Your task to perform on an android device: turn on the 24-hour format for clock Image 0: 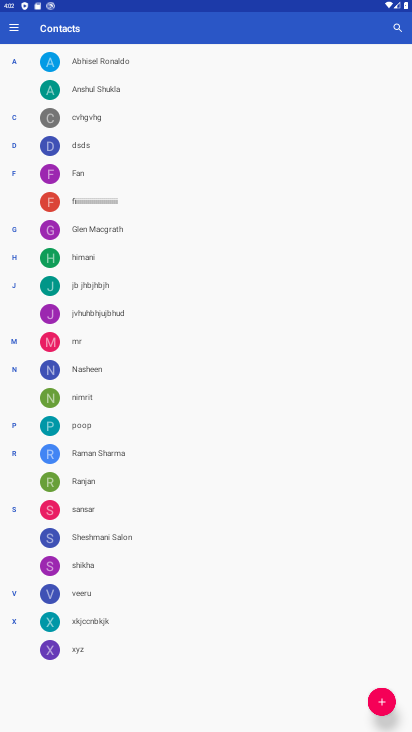
Step 0: press home button
Your task to perform on an android device: turn on the 24-hour format for clock Image 1: 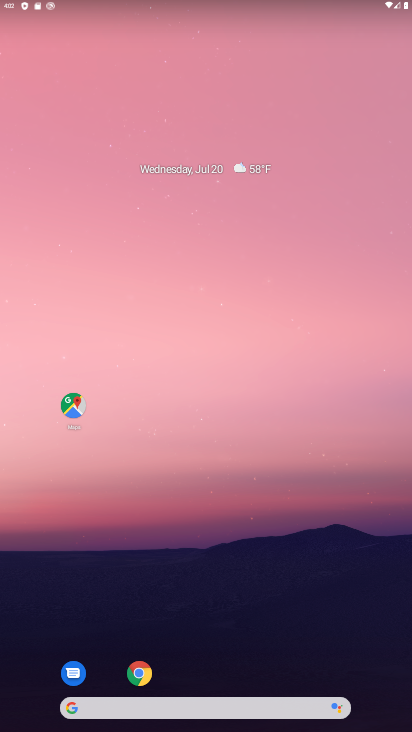
Step 1: drag from (215, 348) to (213, 77)
Your task to perform on an android device: turn on the 24-hour format for clock Image 2: 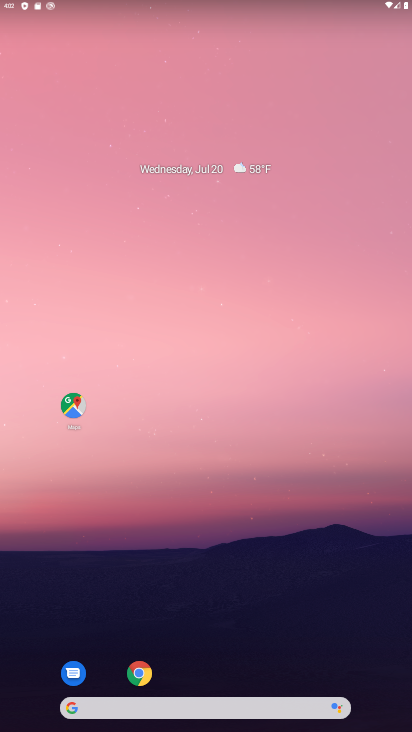
Step 2: drag from (198, 413) to (193, 159)
Your task to perform on an android device: turn on the 24-hour format for clock Image 3: 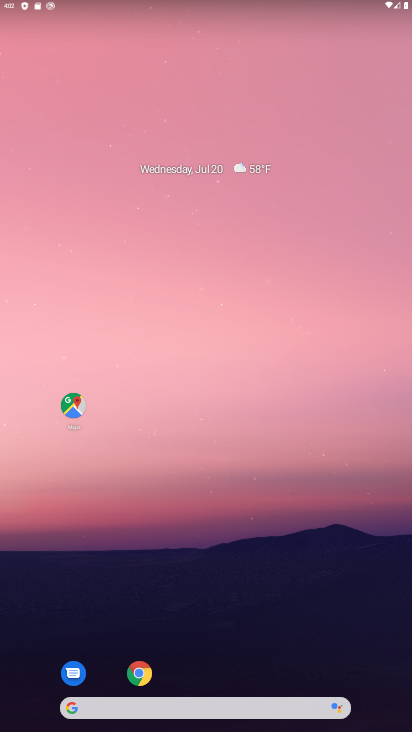
Step 3: drag from (270, 494) to (252, 36)
Your task to perform on an android device: turn on the 24-hour format for clock Image 4: 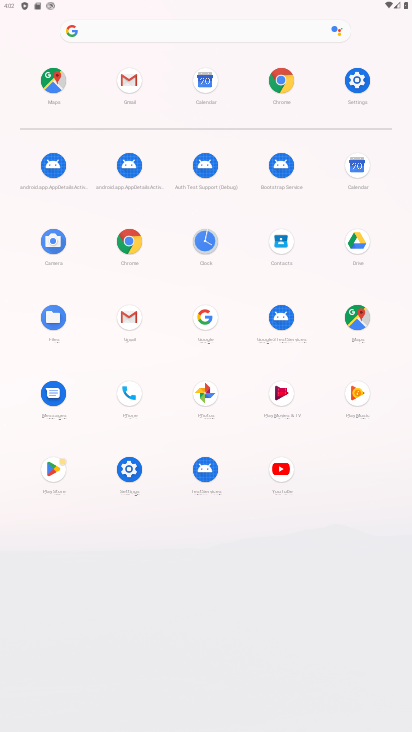
Step 4: click (203, 239)
Your task to perform on an android device: turn on the 24-hour format for clock Image 5: 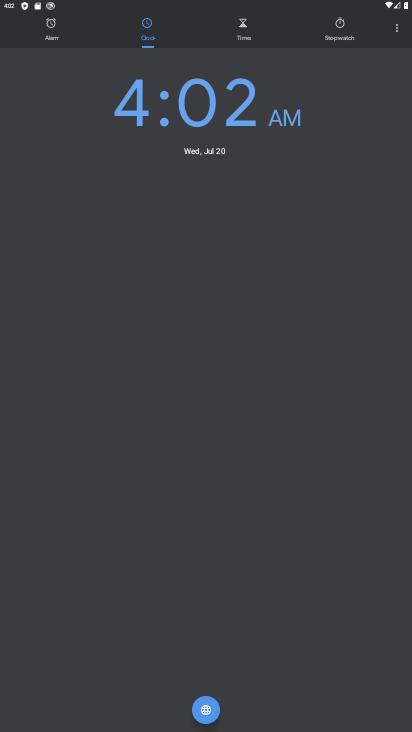
Step 5: click (396, 27)
Your task to perform on an android device: turn on the 24-hour format for clock Image 6: 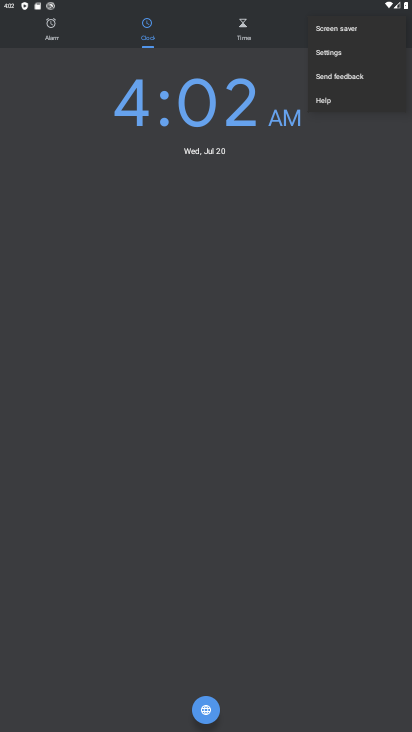
Step 6: click (331, 49)
Your task to perform on an android device: turn on the 24-hour format for clock Image 7: 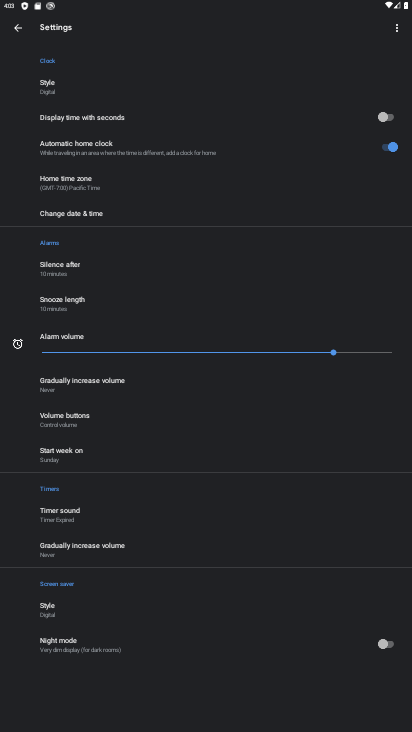
Step 7: task complete